Your task to perform on an android device: Add macbook pro 15 inch to the cart on bestbuy Image 0: 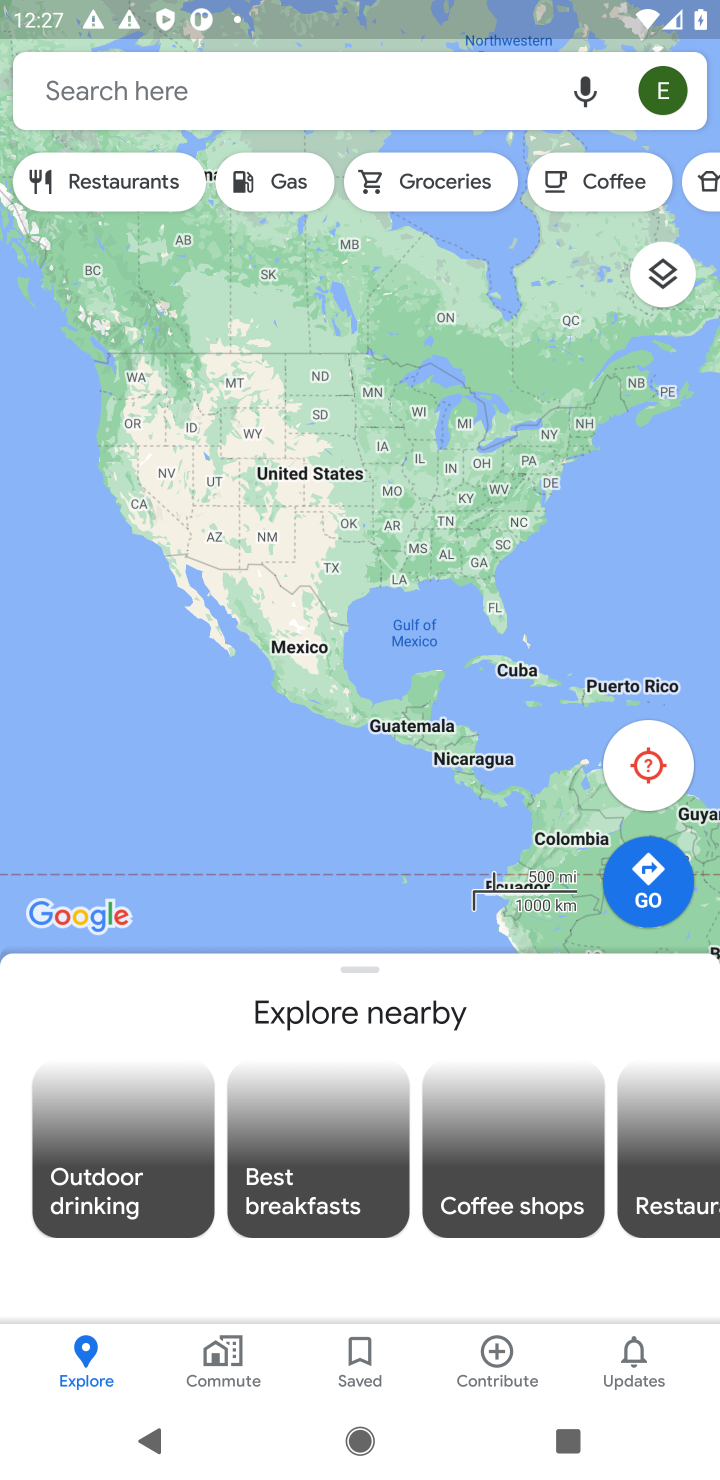
Step 0: press home button
Your task to perform on an android device: Add macbook pro 15 inch to the cart on bestbuy Image 1: 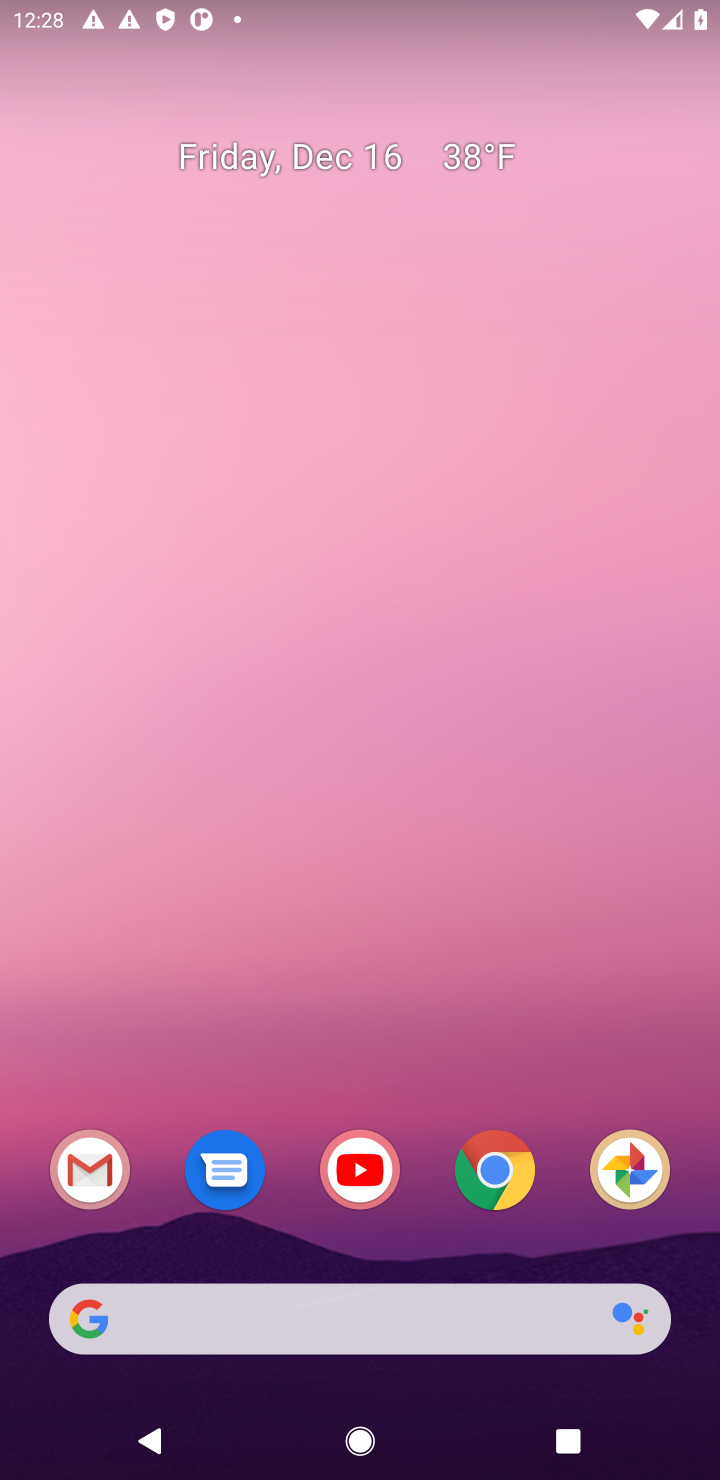
Step 1: click (485, 1170)
Your task to perform on an android device: Add macbook pro 15 inch to the cart on bestbuy Image 2: 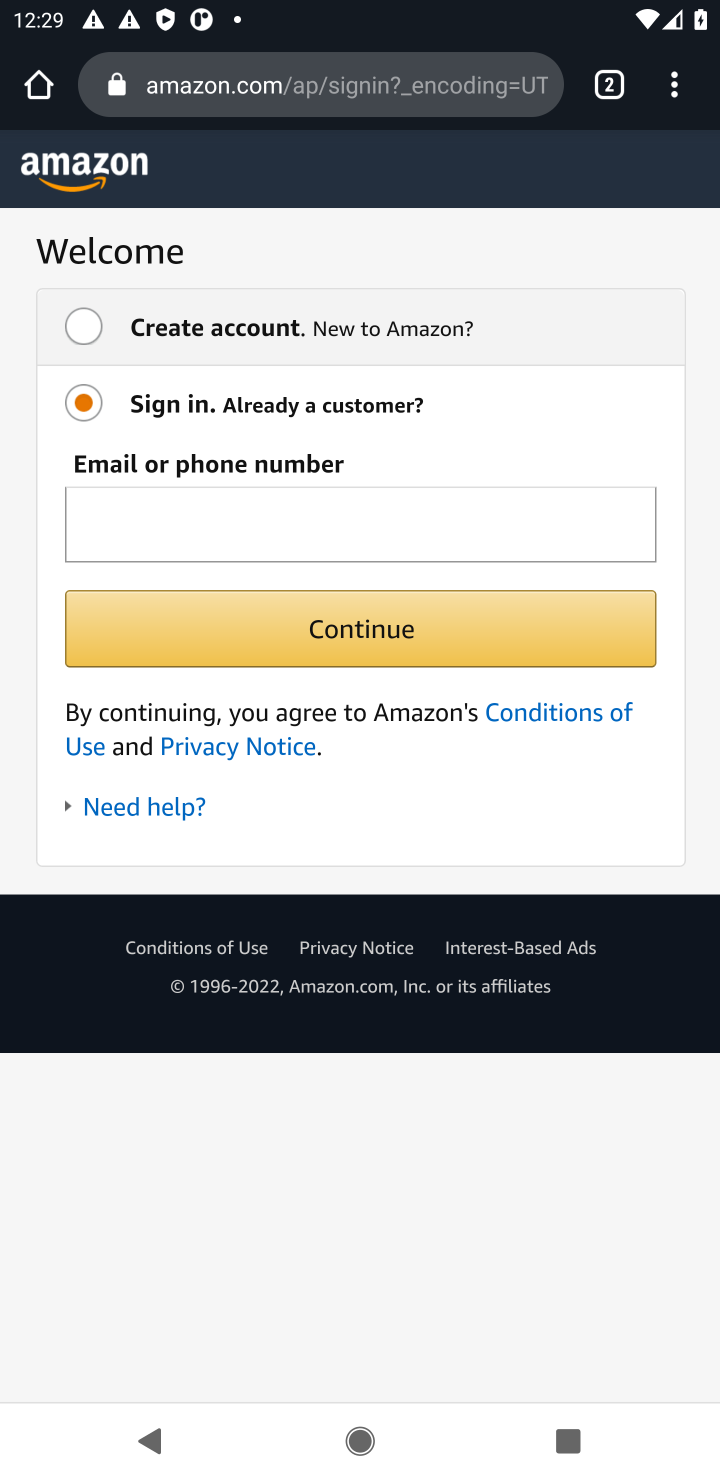
Step 2: click (264, 97)
Your task to perform on an android device: Add macbook pro 15 inch to the cart on bestbuy Image 3: 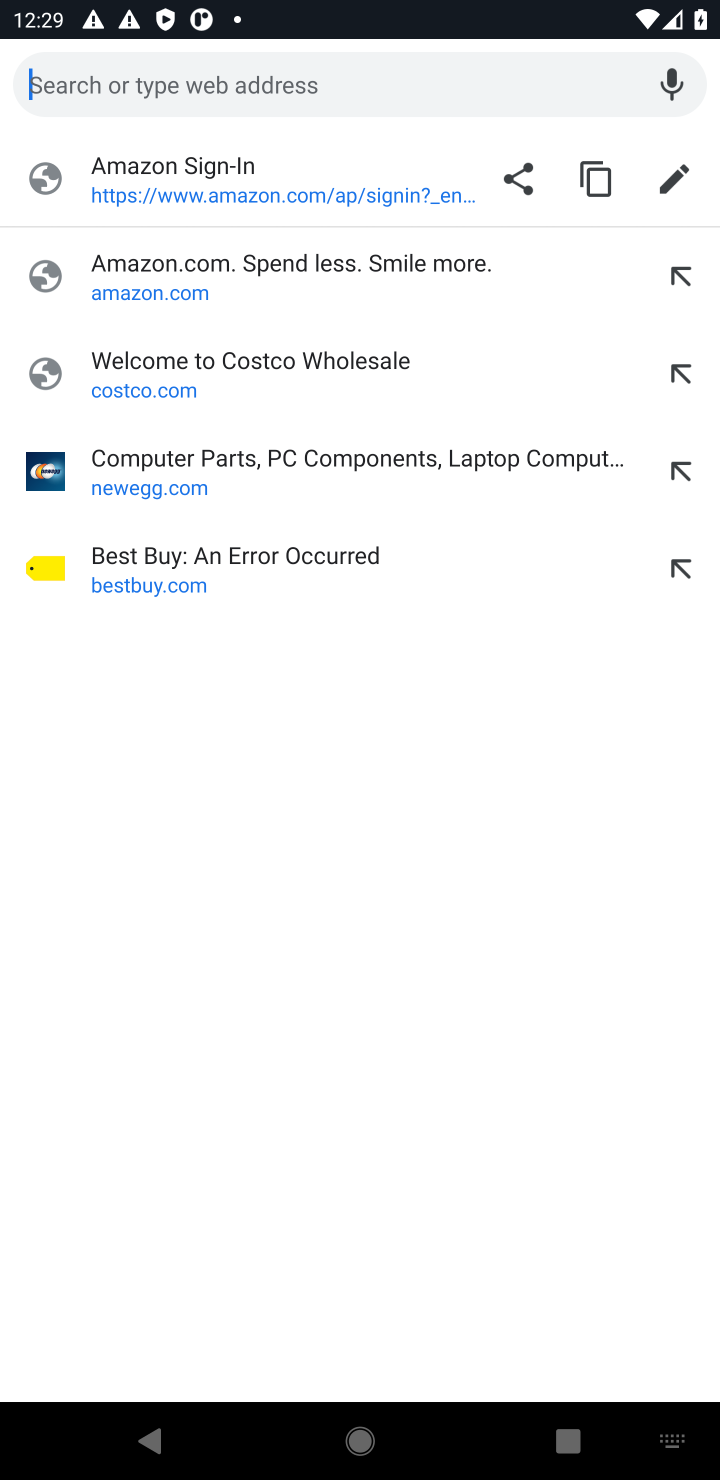
Step 3: type "bestbuy.com"
Your task to perform on an android device: Add macbook pro 15 inch to the cart on bestbuy Image 4: 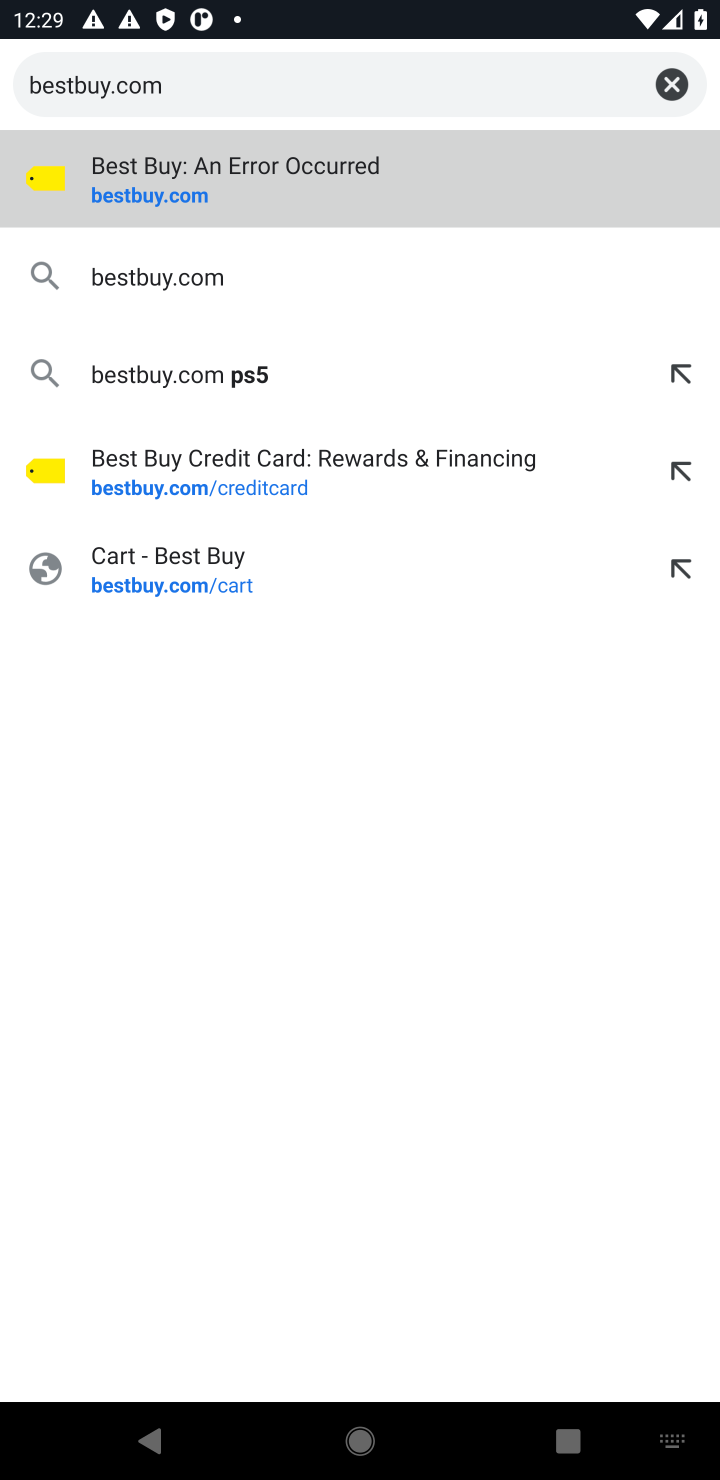
Step 4: click (167, 197)
Your task to perform on an android device: Add macbook pro 15 inch to the cart on bestbuy Image 5: 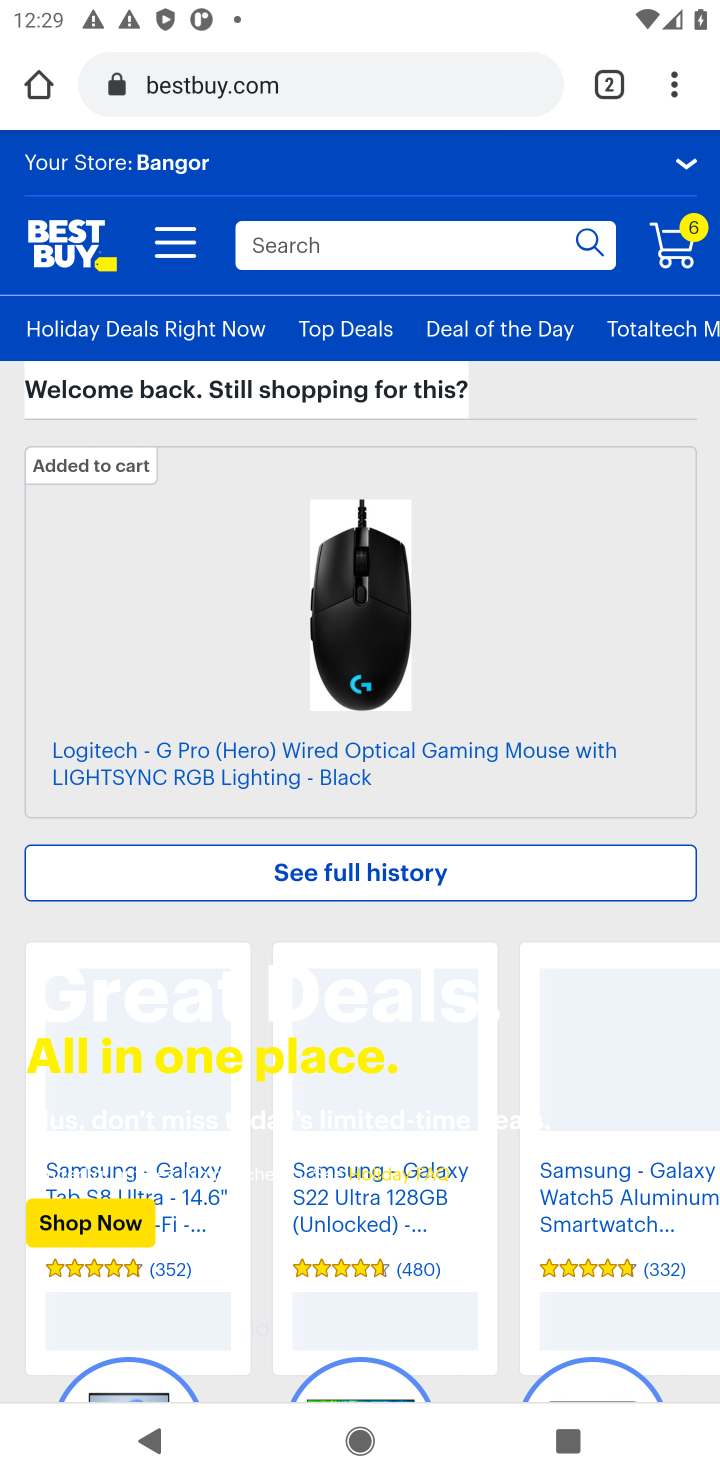
Step 5: click (330, 252)
Your task to perform on an android device: Add macbook pro 15 inch to the cart on bestbuy Image 6: 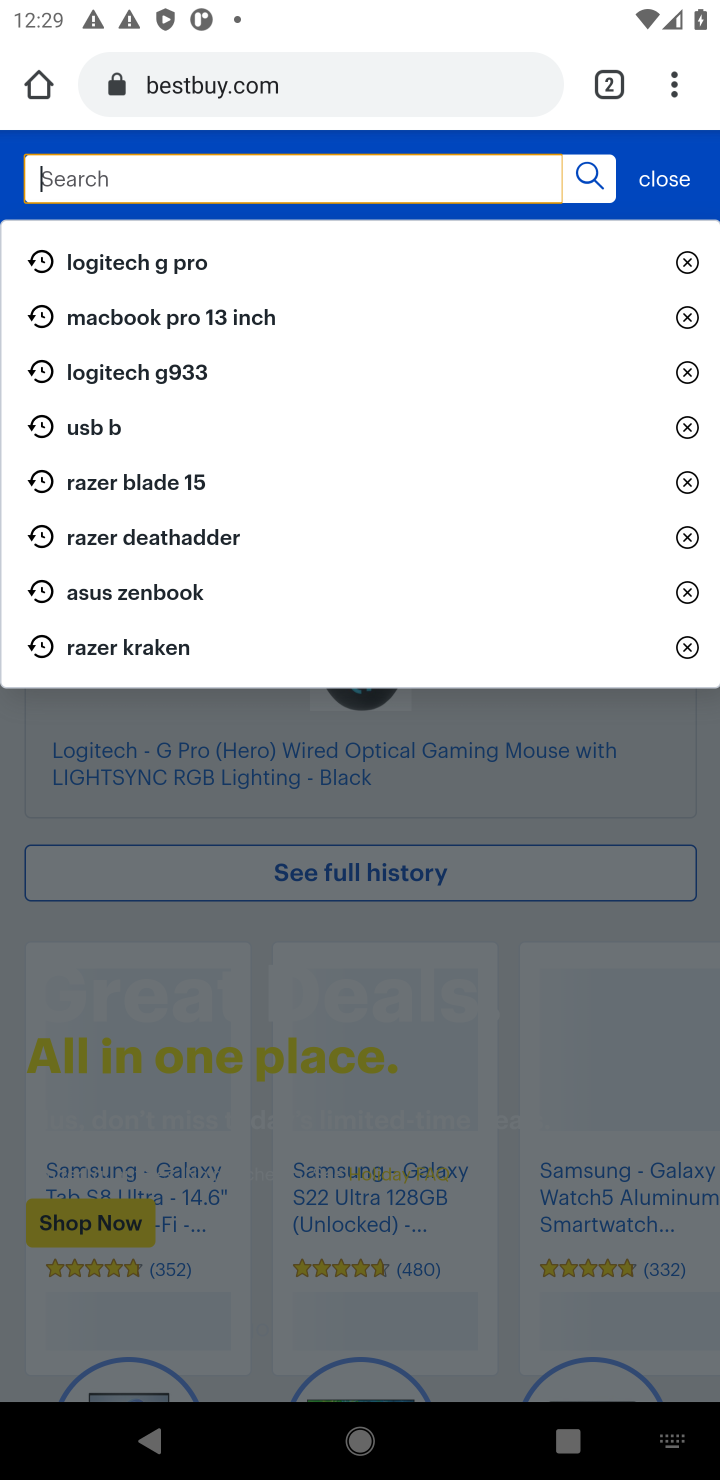
Step 6: type "macbook pro 15 inch"
Your task to perform on an android device: Add macbook pro 15 inch to the cart on bestbuy Image 7: 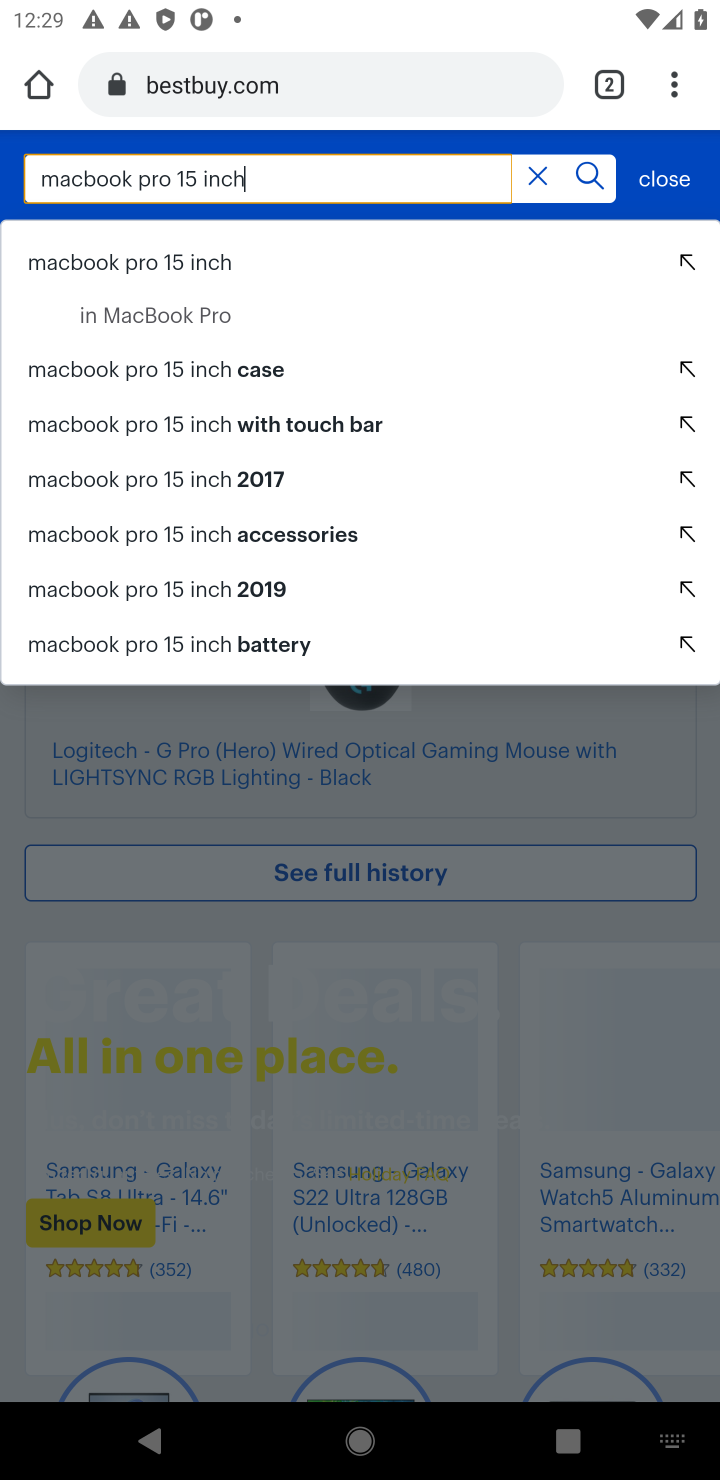
Step 7: click (152, 271)
Your task to perform on an android device: Add macbook pro 15 inch to the cart on bestbuy Image 8: 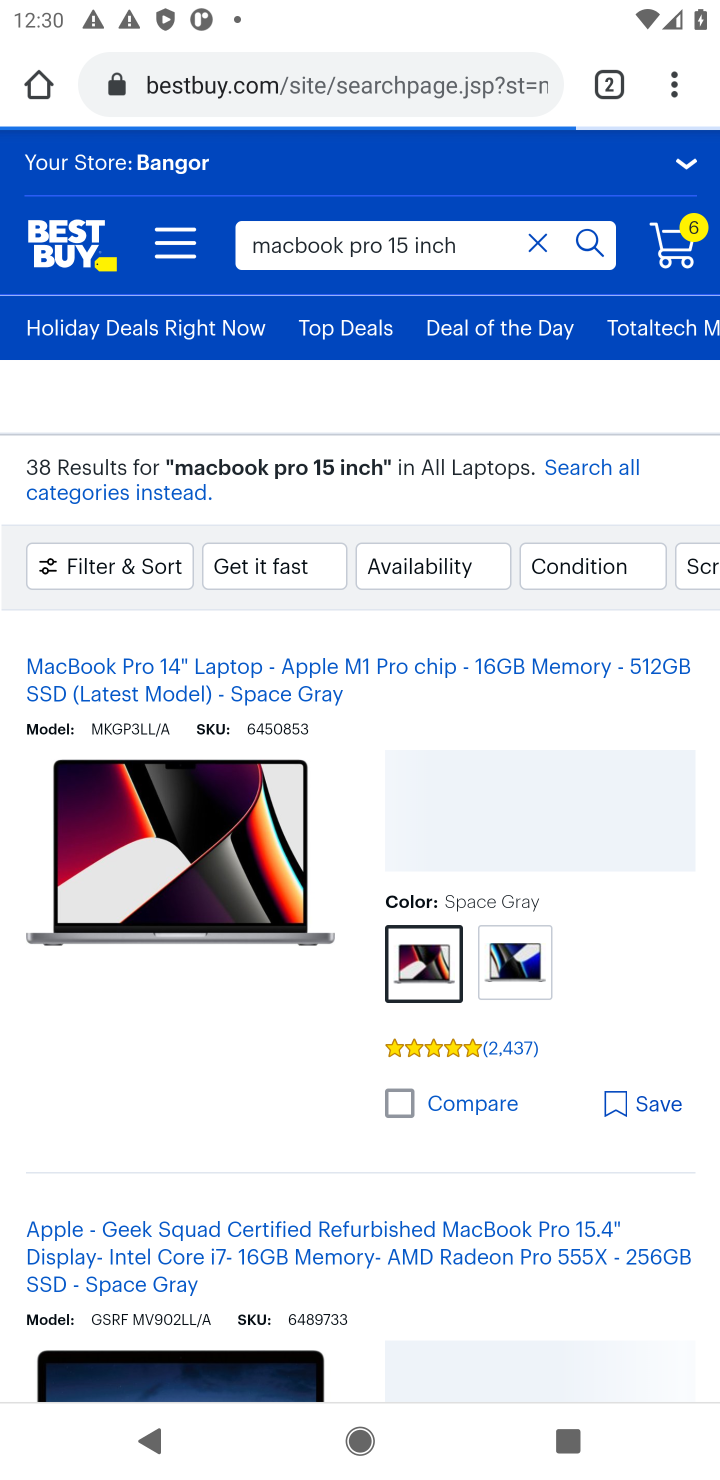
Step 8: drag from (303, 1019) to (305, 669)
Your task to perform on an android device: Add macbook pro 15 inch to the cart on bestbuy Image 9: 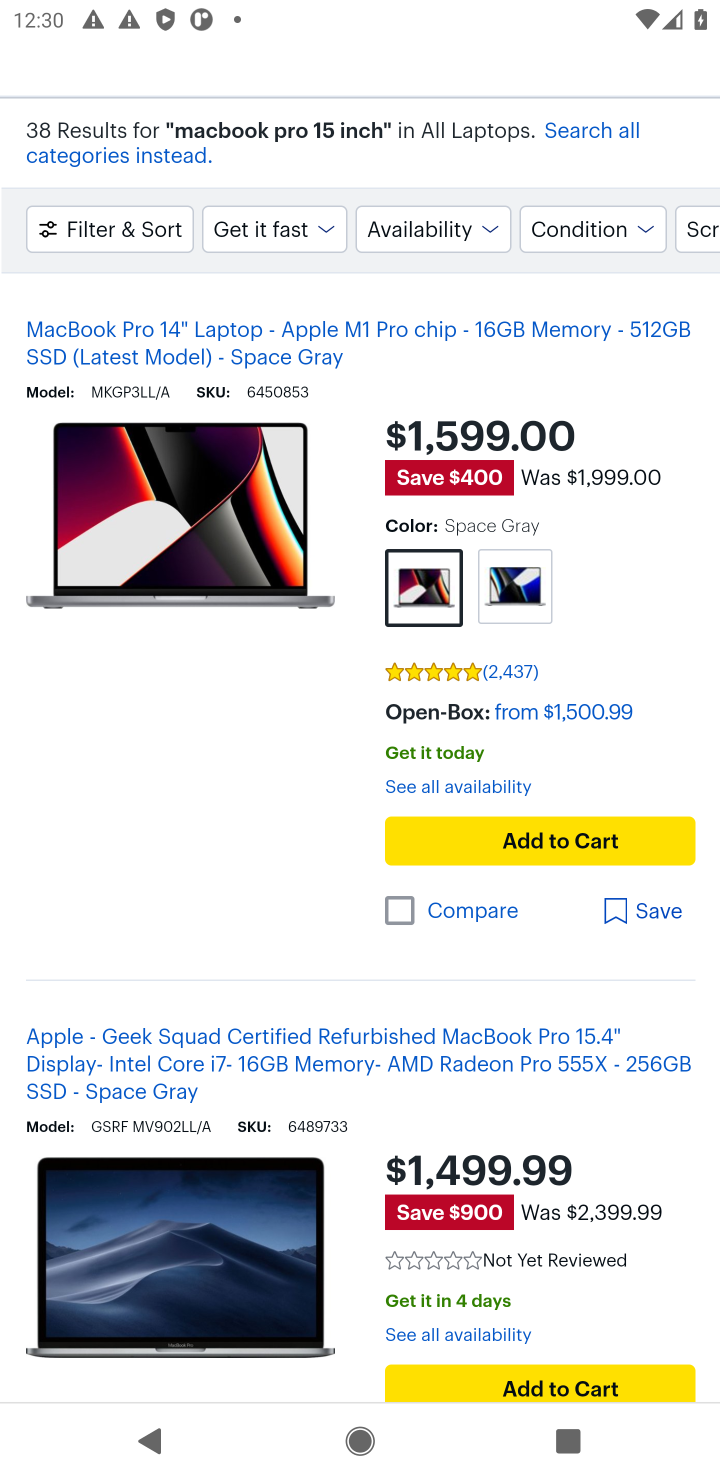
Step 9: drag from (320, 1131) to (312, 648)
Your task to perform on an android device: Add macbook pro 15 inch to the cart on bestbuy Image 10: 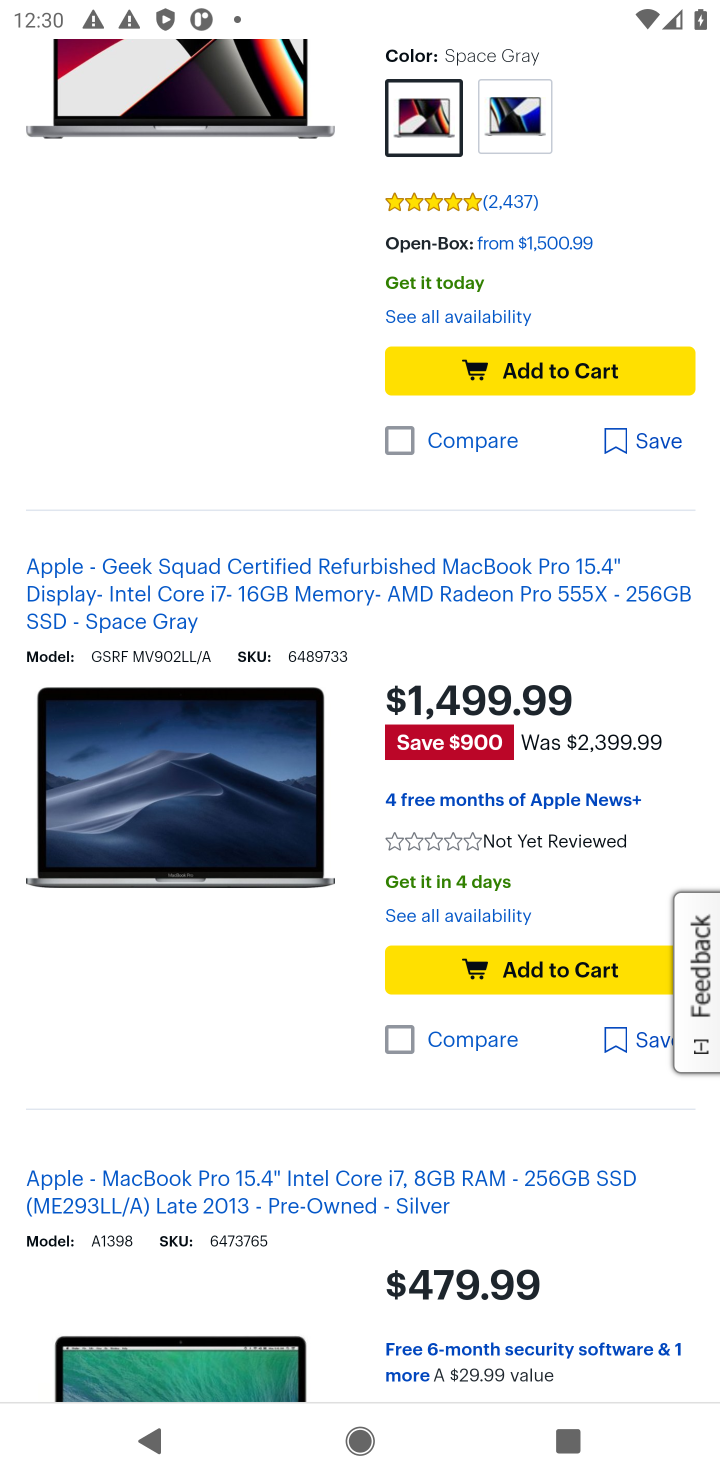
Step 10: drag from (239, 473) to (244, 789)
Your task to perform on an android device: Add macbook pro 15 inch to the cart on bestbuy Image 11: 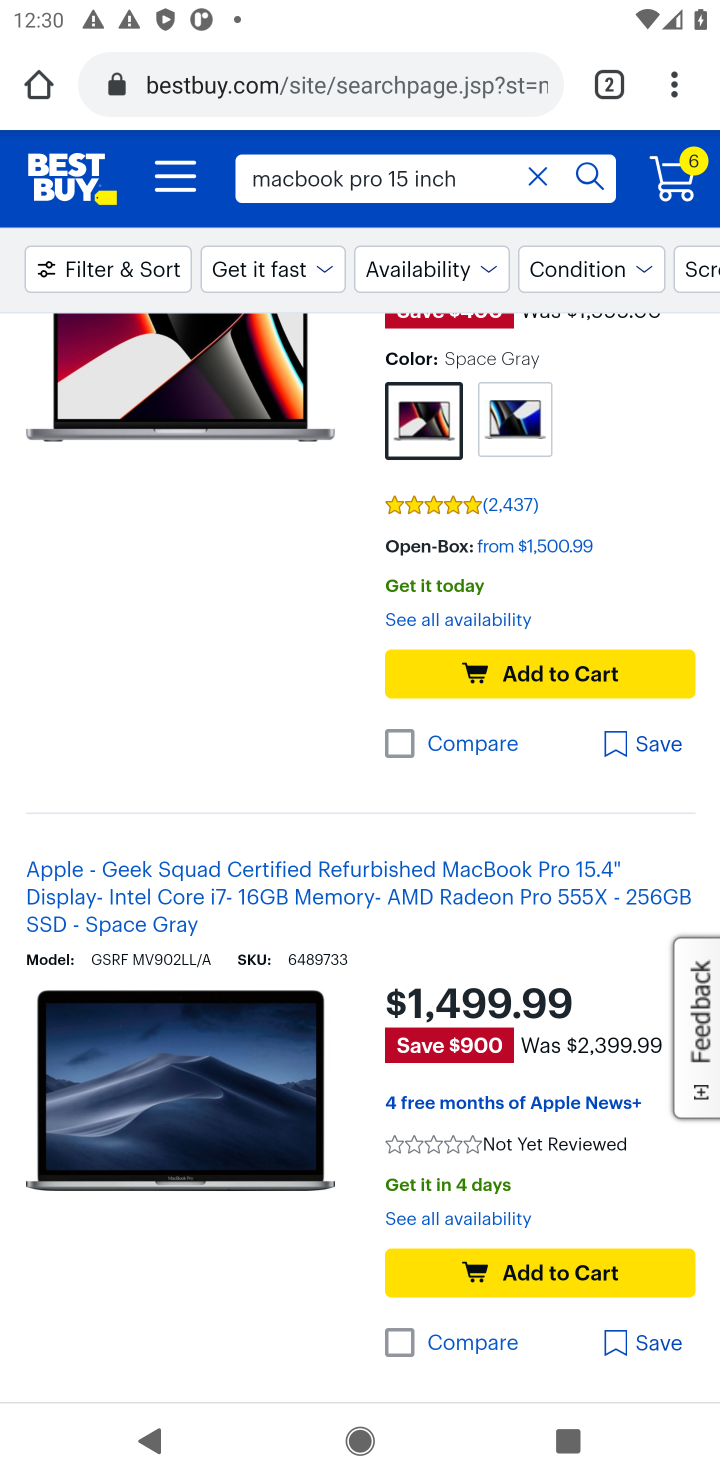
Step 11: drag from (244, 791) to (237, 646)
Your task to perform on an android device: Add macbook pro 15 inch to the cart on bestbuy Image 12: 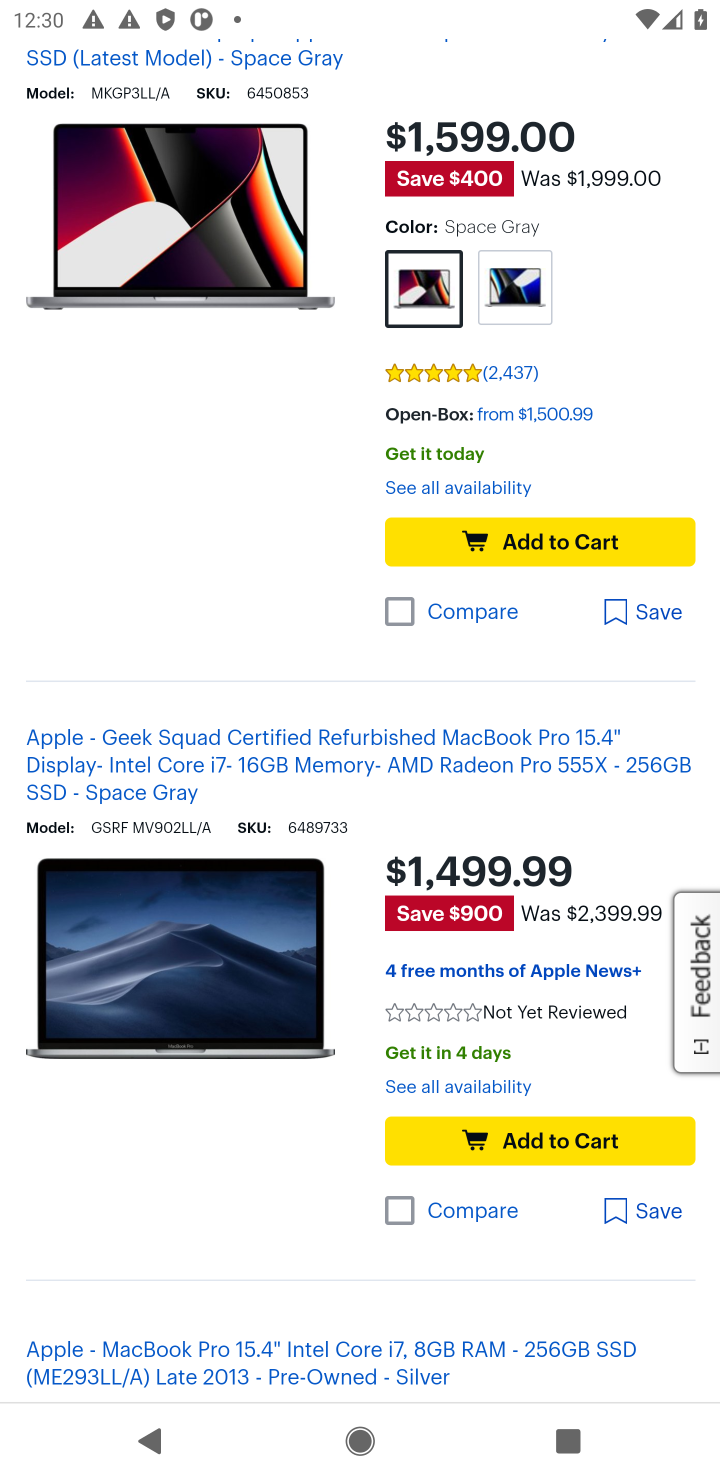
Step 12: click (518, 1140)
Your task to perform on an android device: Add macbook pro 15 inch to the cart on bestbuy Image 13: 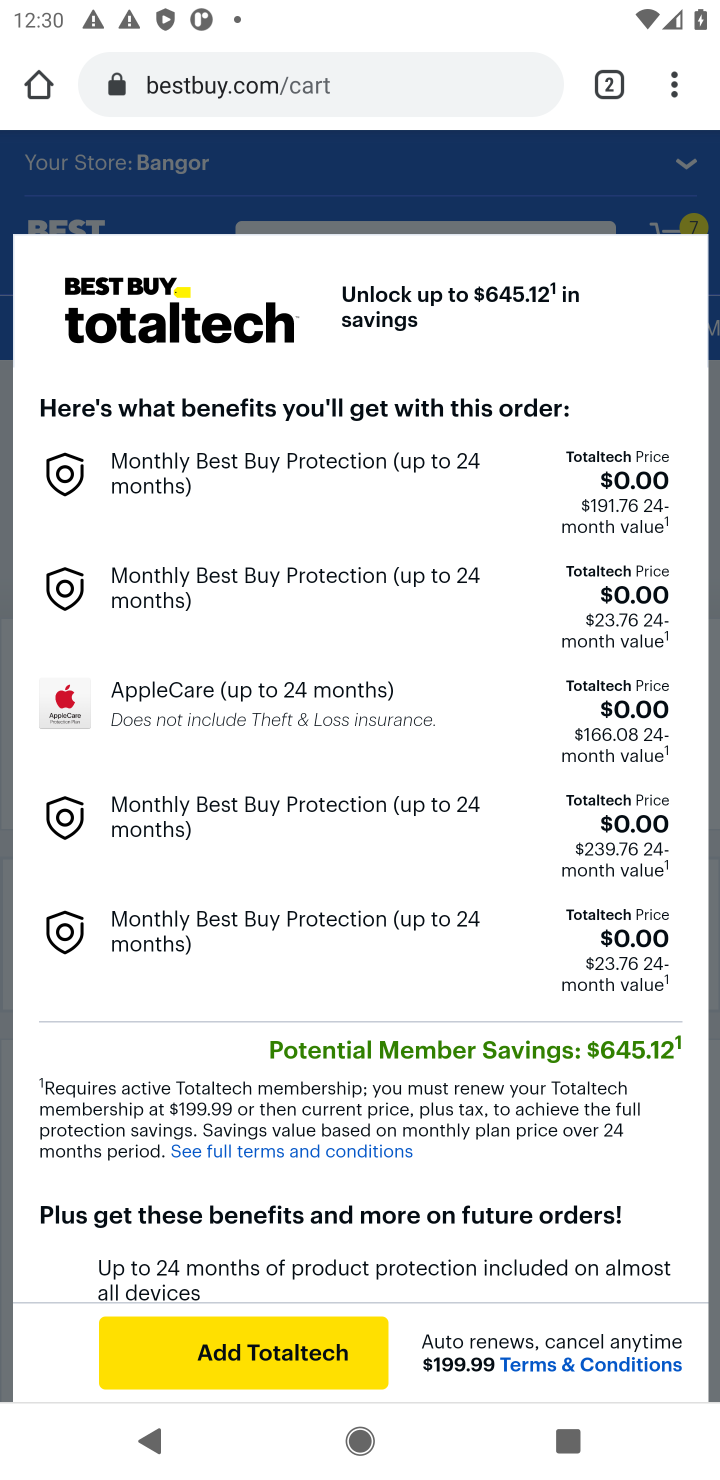
Step 13: task complete